Your task to perform on an android device: Go to sound settings Image 0: 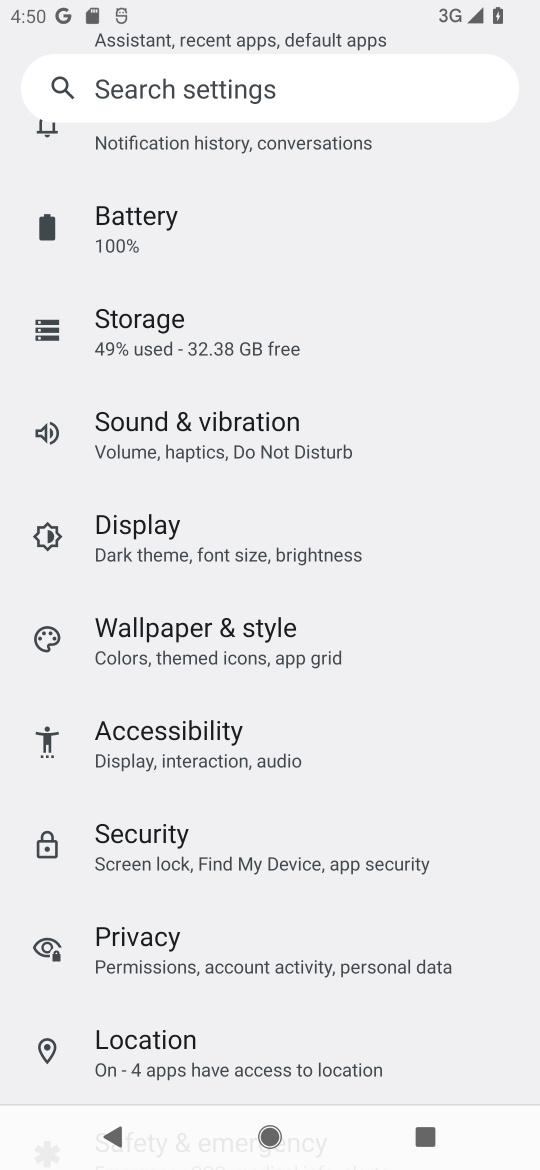
Step 0: drag from (254, 555) to (374, 433)
Your task to perform on an android device: Go to sound settings Image 1: 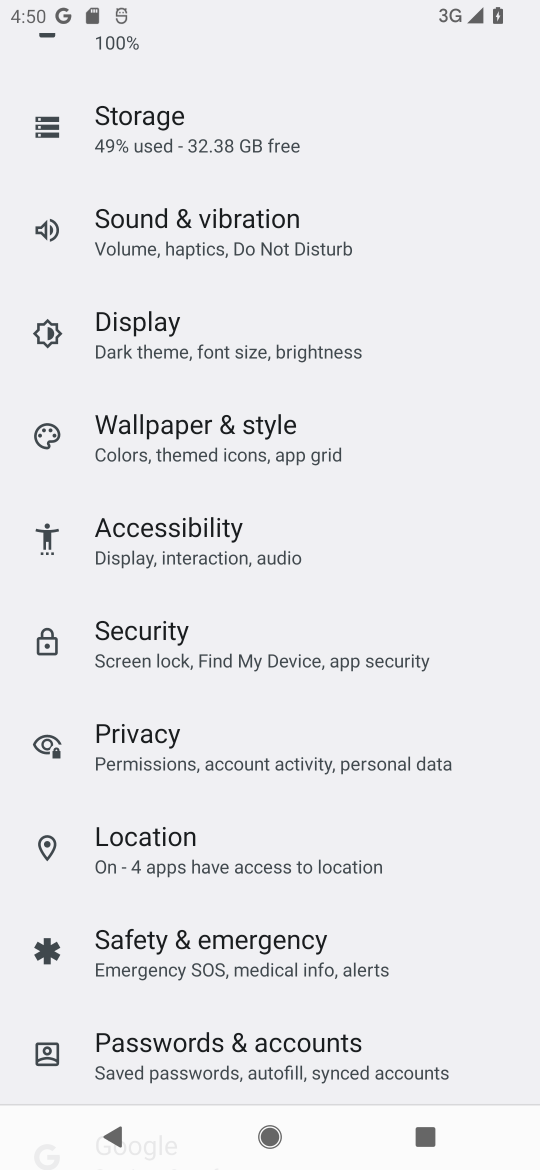
Step 1: drag from (191, 1000) to (206, 929)
Your task to perform on an android device: Go to sound settings Image 2: 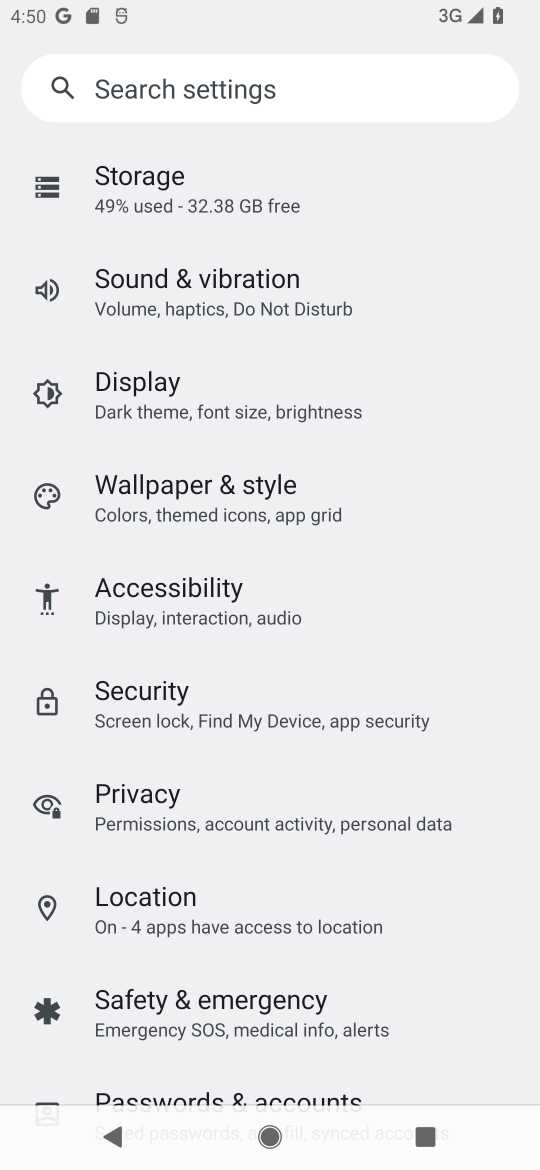
Step 2: click (247, 275)
Your task to perform on an android device: Go to sound settings Image 3: 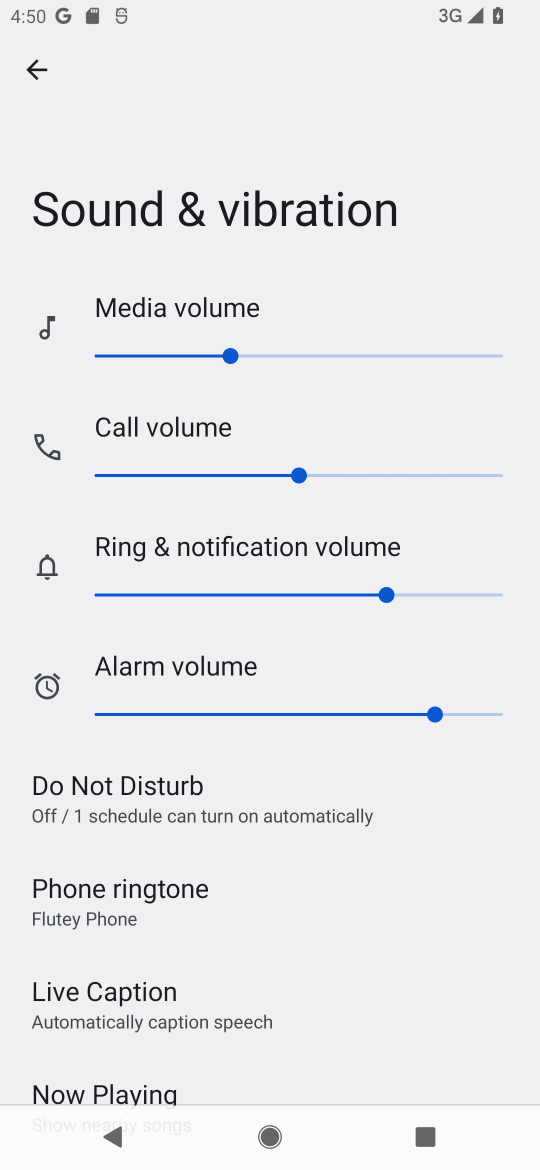
Step 3: task complete